Your task to perform on an android device: Go to CNN.com Image 0: 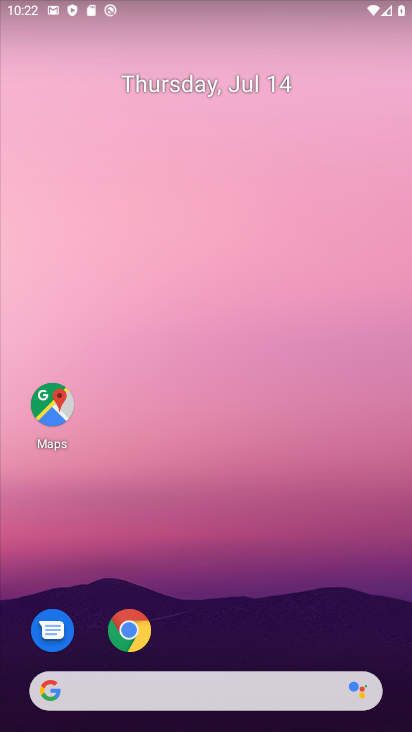
Step 0: click (130, 626)
Your task to perform on an android device: Go to CNN.com Image 1: 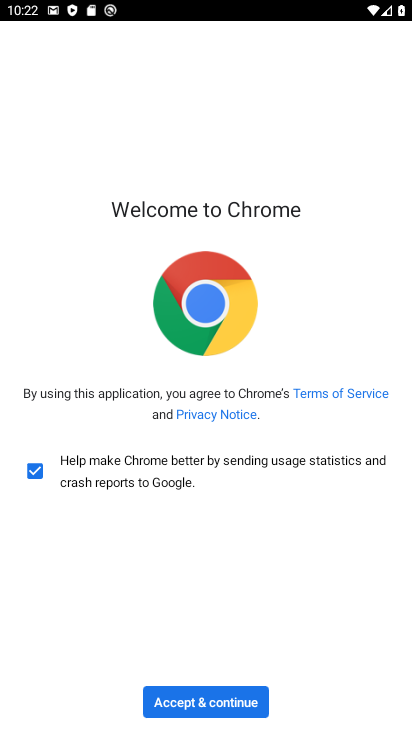
Step 1: click (238, 697)
Your task to perform on an android device: Go to CNN.com Image 2: 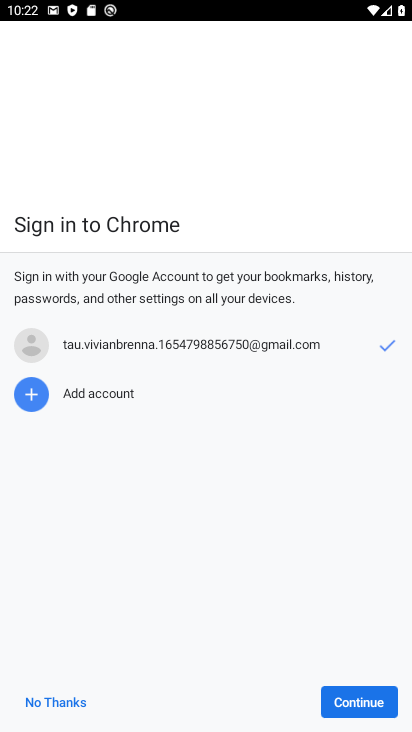
Step 2: click (360, 694)
Your task to perform on an android device: Go to CNN.com Image 3: 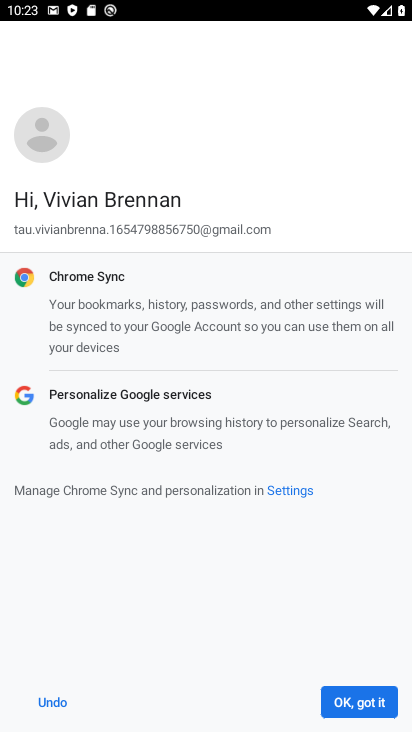
Step 3: click (364, 702)
Your task to perform on an android device: Go to CNN.com Image 4: 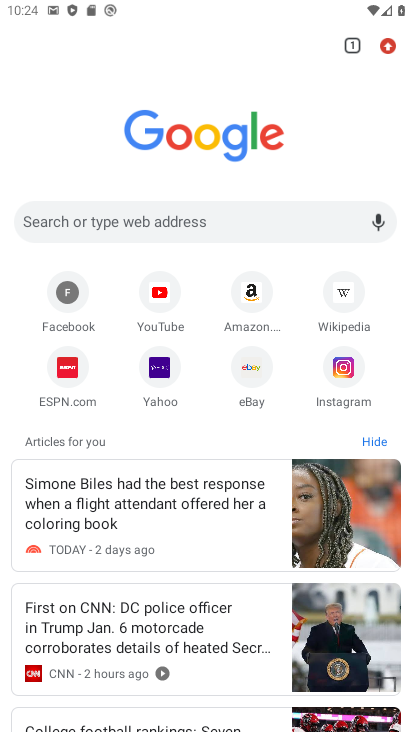
Step 4: click (186, 215)
Your task to perform on an android device: Go to CNN.com Image 5: 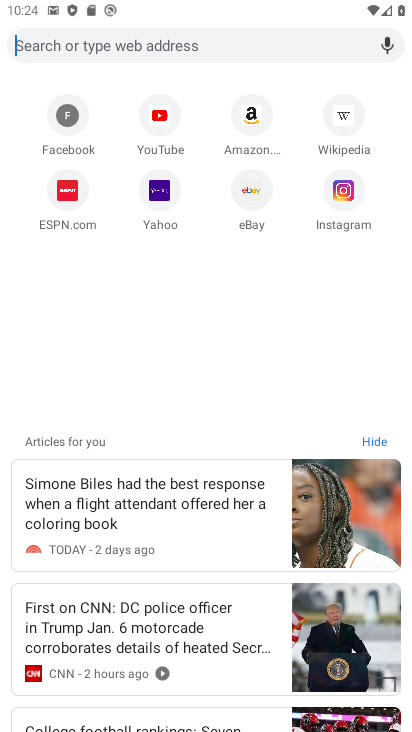
Step 5: click (186, 218)
Your task to perform on an android device: Go to CNN.com Image 6: 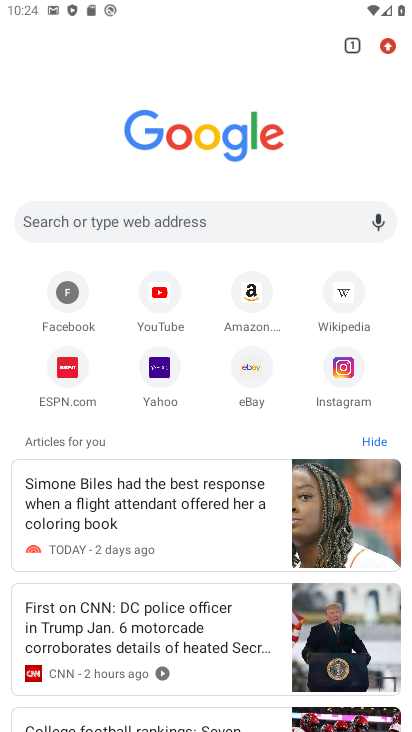
Step 6: type "CNN.com"
Your task to perform on an android device: Go to CNN.com Image 7: 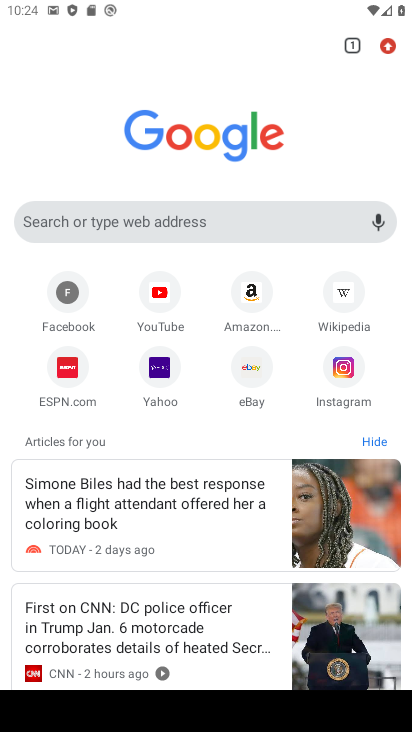
Step 7: click (124, 219)
Your task to perform on an android device: Go to CNN.com Image 8: 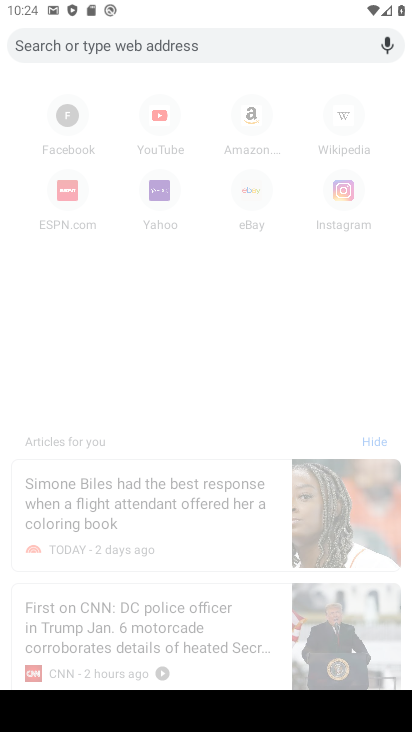
Step 8: type "CNN.com"
Your task to perform on an android device: Go to CNN.com Image 9: 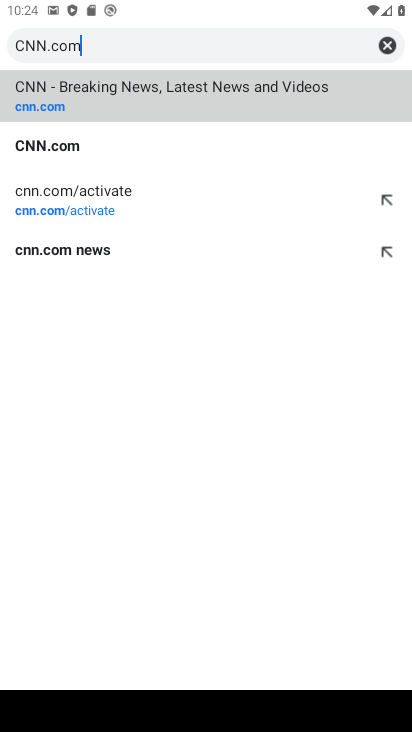
Step 9: click (35, 151)
Your task to perform on an android device: Go to CNN.com Image 10: 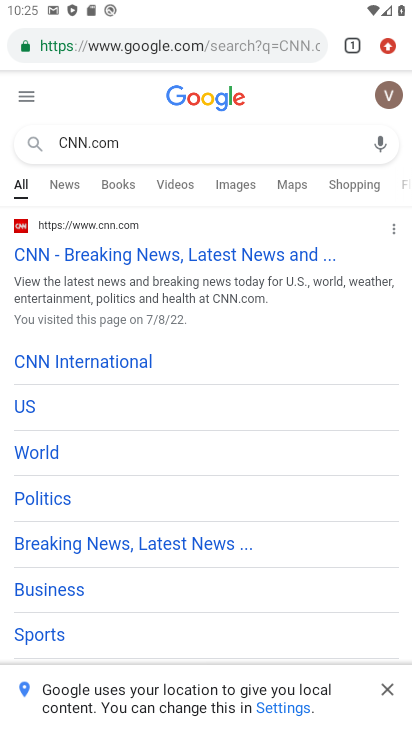
Step 10: task complete